Your task to perform on an android device: check data usage Image 0: 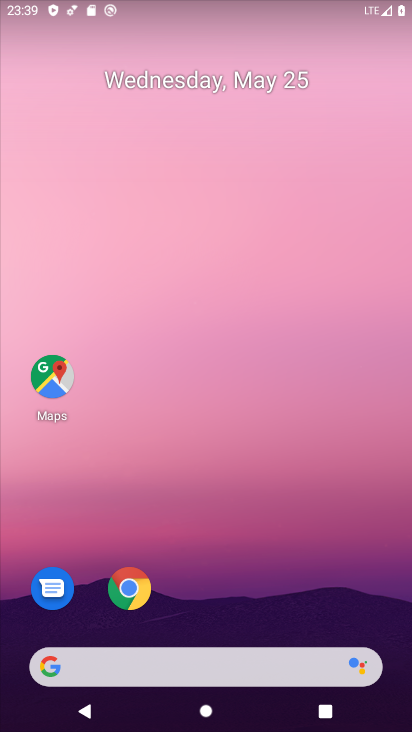
Step 0: drag from (293, 550) to (356, 69)
Your task to perform on an android device: check data usage Image 1: 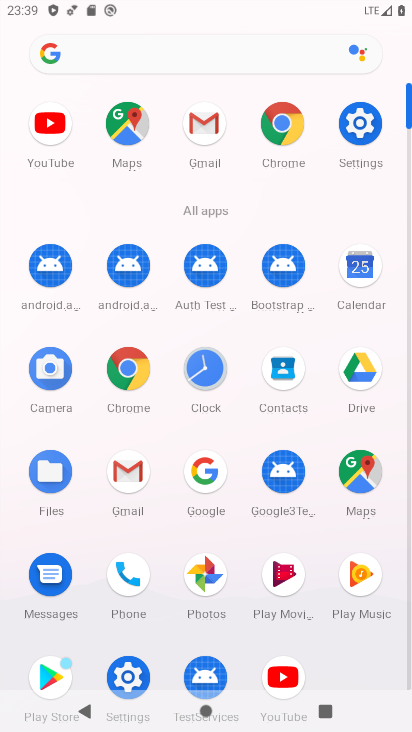
Step 1: click (355, 202)
Your task to perform on an android device: check data usage Image 2: 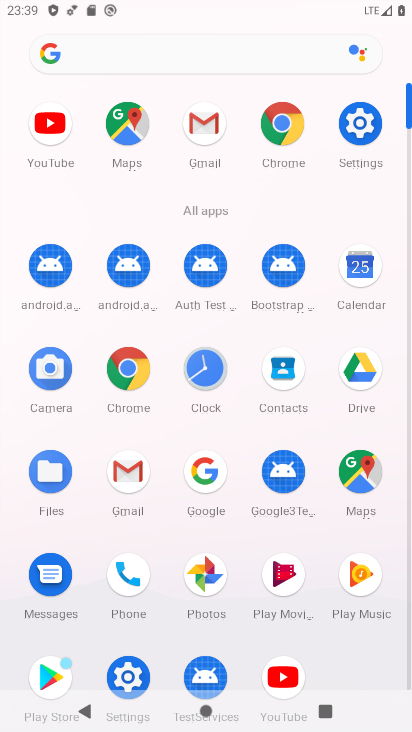
Step 2: click (348, 129)
Your task to perform on an android device: check data usage Image 3: 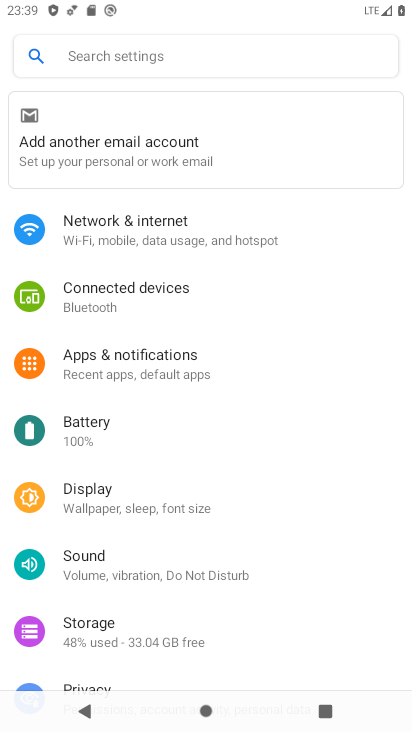
Step 3: click (128, 240)
Your task to perform on an android device: check data usage Image 4: 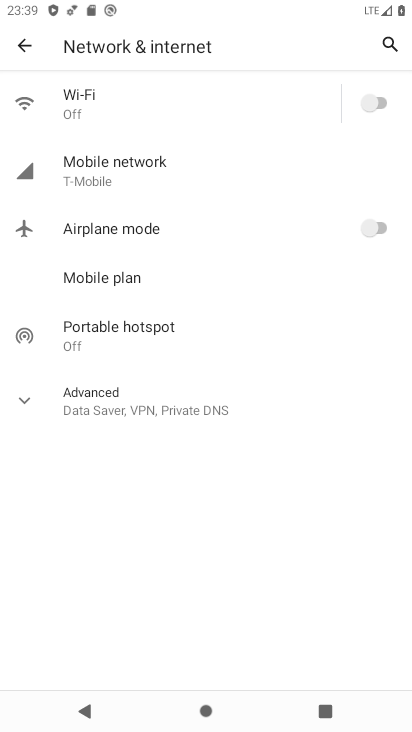
Step 4: click (125, 166)
Your task to perform on an android device: check data usage Image 5: 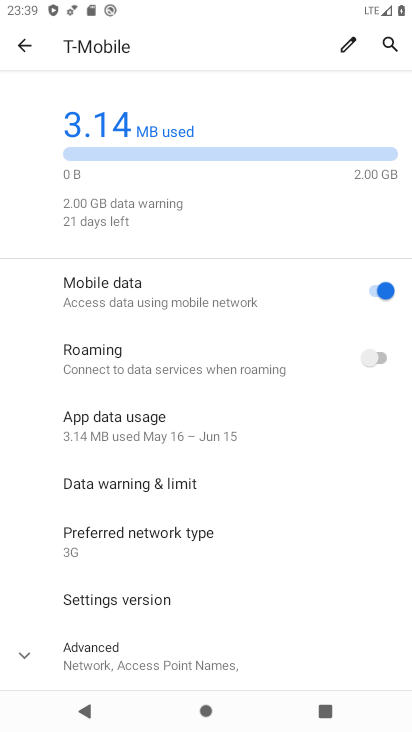
Step 5: task complete